Your task to perform on an android device: turn on airplane mode Image 0: 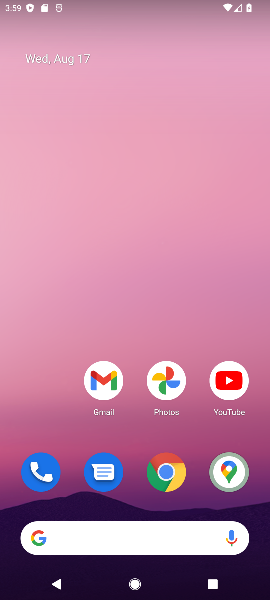
Step 0: drag from (146, 438) to (146, 63)
Your task to perform on an android device: turn on airplane mode Image 1: 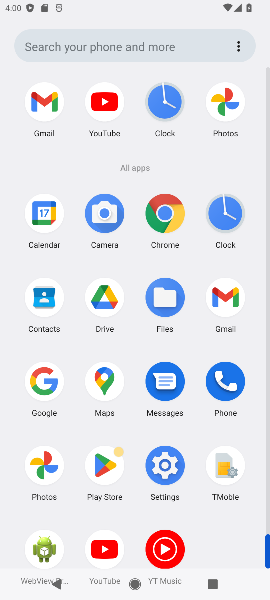
Step 1: click (151, 457)
Your task to perform on an android device: turn on airplane mode Image 2: 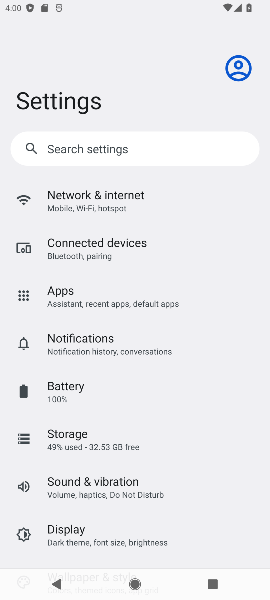
Step 2: click (103, 212)
Your task to perform on an android device: turn on airplane mode Image 3: 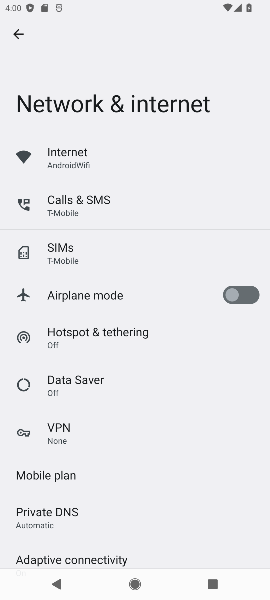
Step 3: click (258, 297)
Your task to perform on an android device: turn on airplane mode Image 4: 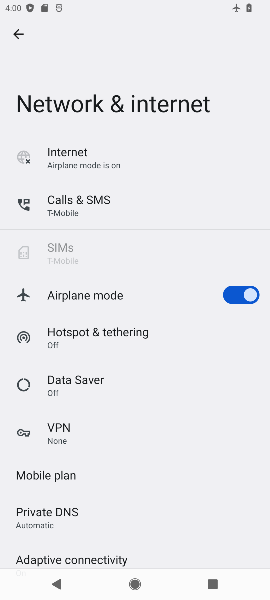
Step 4: task complete